Your task to perform on an android device: Search for "alienware area 51" on costco.com, select the first entry, and add it to the cart. Image 0: 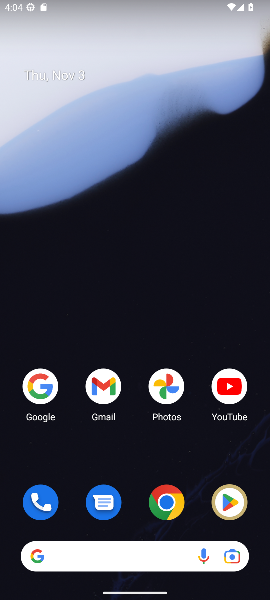
Step 0: click (168, 498)
Your task to perform on an android device: Search for "alienware area 51" on costco.com, select the first entry, and add it to the cart. Image 1: 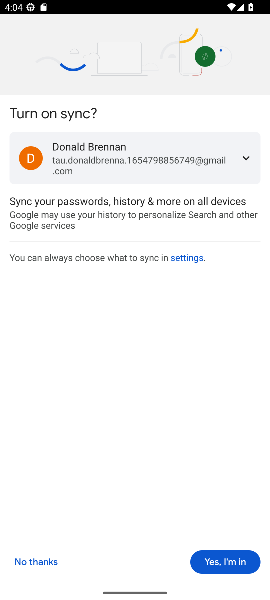
Step 1: click (211, 562)
Your task to perform on an android device: Search for "alienware area 51" on costco.com, select the first entry, and add it to the cart. Image 2: 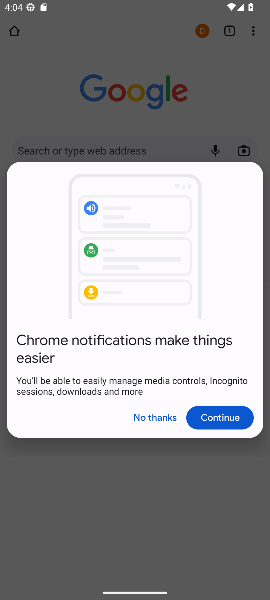
Step 2: click (158, 417)
Your task to perform on an android device: Search for "alienware area 51" on costco.com, select the first entry, and add it to the cart. Image 3: 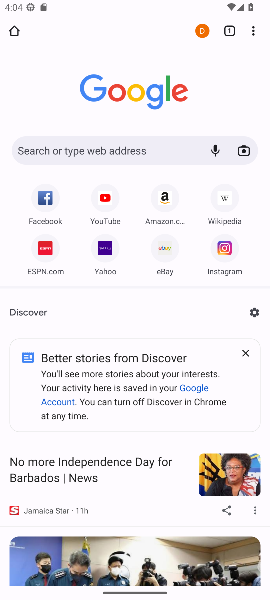
Step 3: click (67, 147)
Your task to perform on an android device: Search for "alienware area 51" on costco.com, select the first entry, and add it to the cart. Image 4: 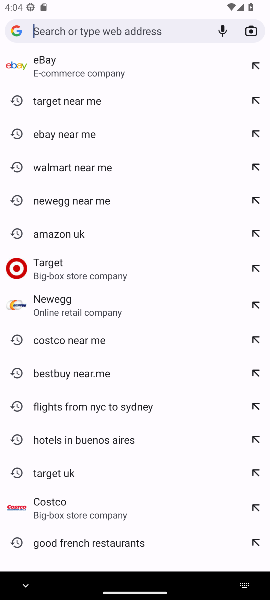
Step 4: click (53, 501)
Your task to perform on an android device: Search for "alienware area 51" on costco.com, select the first entry, and add it to the cart. Image 5: 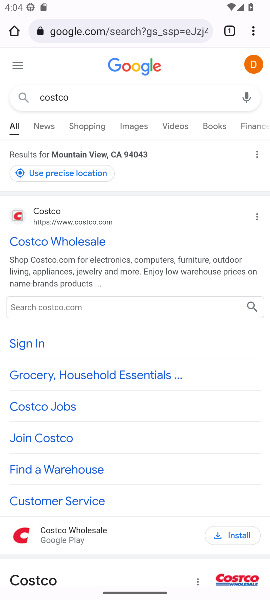
Step 5: click (45, 242)
Your task to perform on an android device: Search for "alienware area 51" on costco.com, select the first entry, and add it to the cart. Image 6: 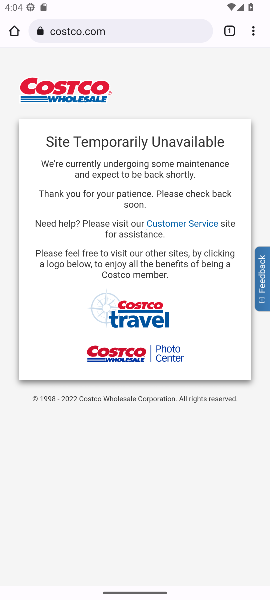
Step 6: task complete